Your task to perform on an android device: Open my contact list Image 0: 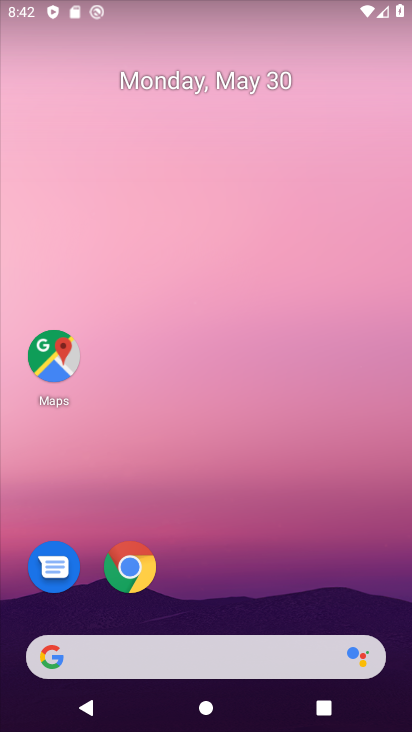
Step 0: drag from (236, 608) to (223, 107)
Your task to perform on an android device: Open my contact list Image 1: 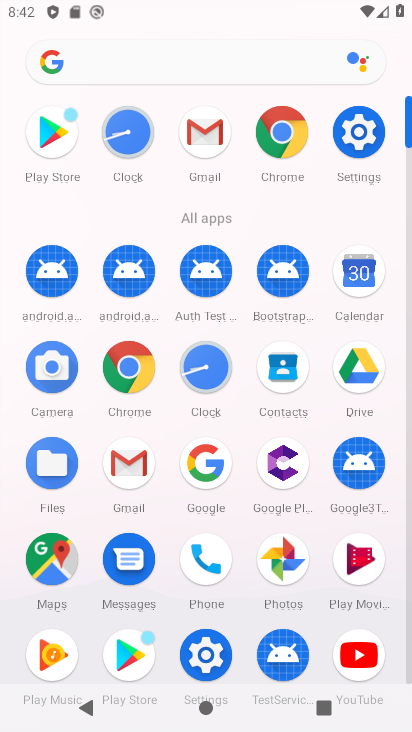
Step 1: click (295, 360)
Your task to perform on an android device: Open my contact list Image 2: 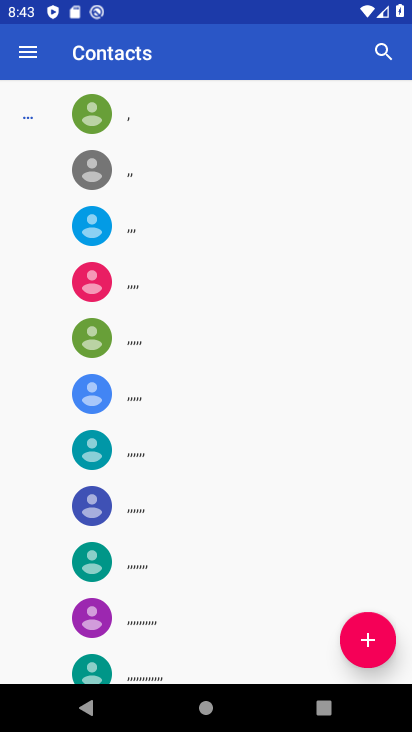
Step 2: task complete